Your task to perform on an android device: check out phone information Image 0: 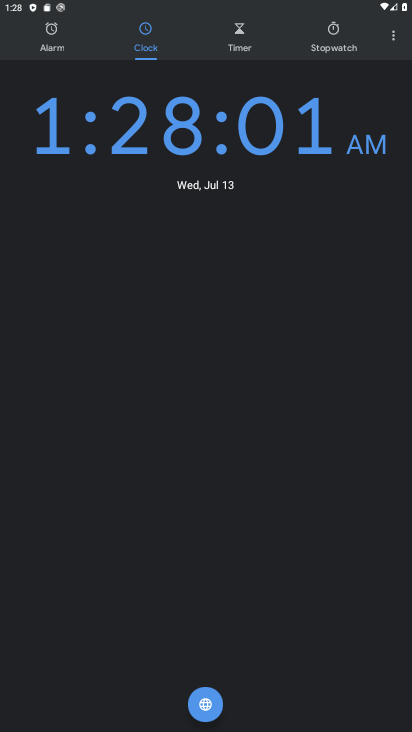
Step 0: press home button
Your task to perform on an android device: check out phone information Image 1: 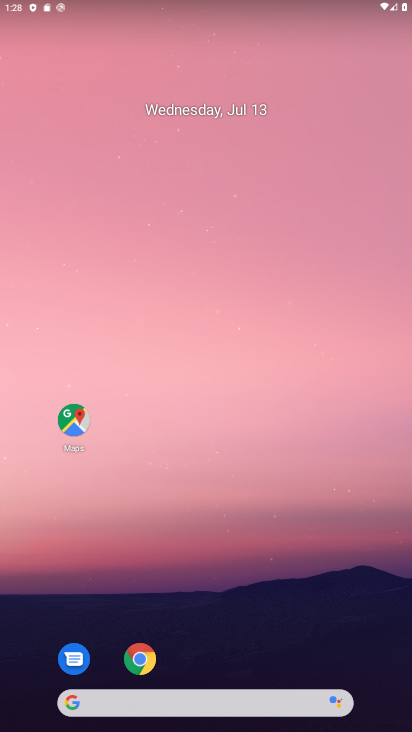
Step 1: drag from (386, 671) to (274, 165)
Your task to perform on an android device: check out phone information Image 2: 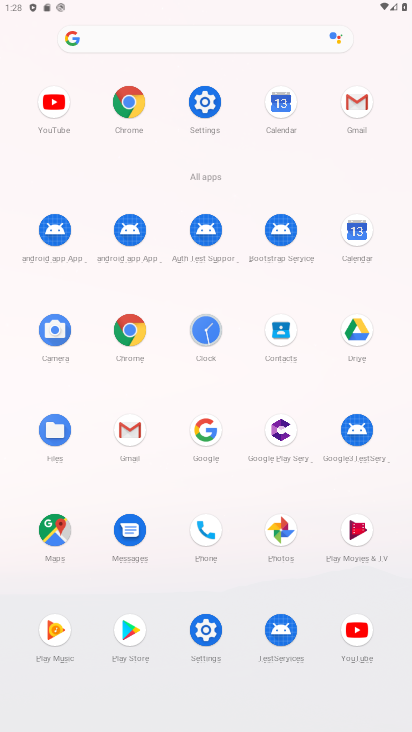
Step 2: click (207, 632)
Your task to perform on an android device: check out phone information Image 3: 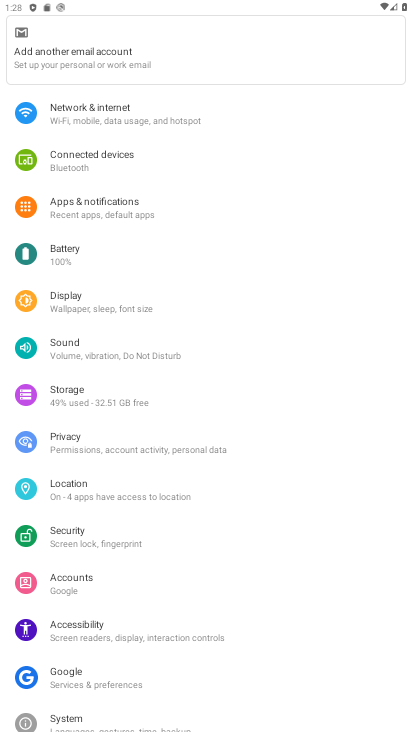
Step 3: drag from (262, 656) to (274, 296)
Your task to perform on an android device: check out phone information Image 4: 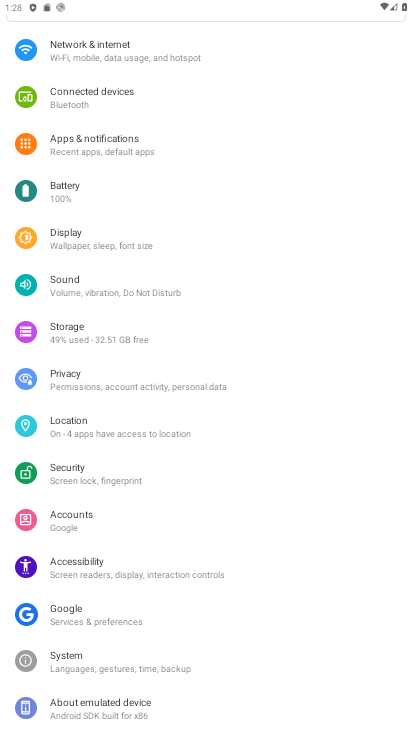
Step 4: click (80, 696)
Your task to perform on an android device: check out phone information Image 5: 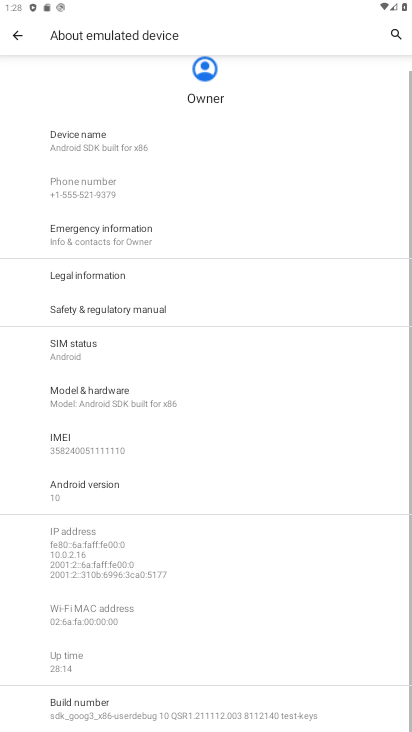
Step 5: task complete